Your task to perform on an android device: toggle translation in the chrome app Image 0: 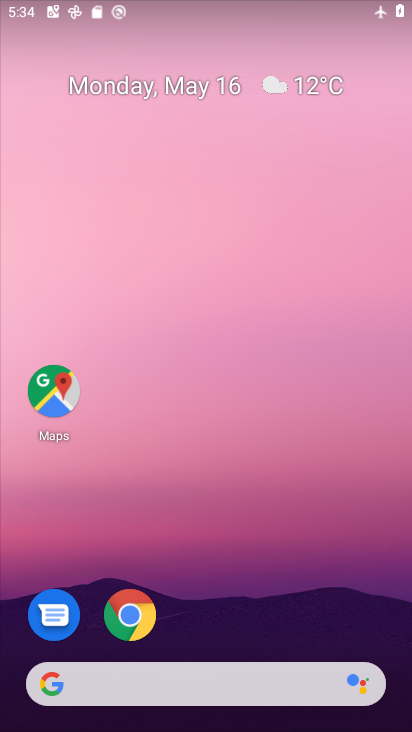
Step 0: drag from (191, 655) to (272, 222)
Your task to perform on an android device: toggle translation in the chrome app Image 1: 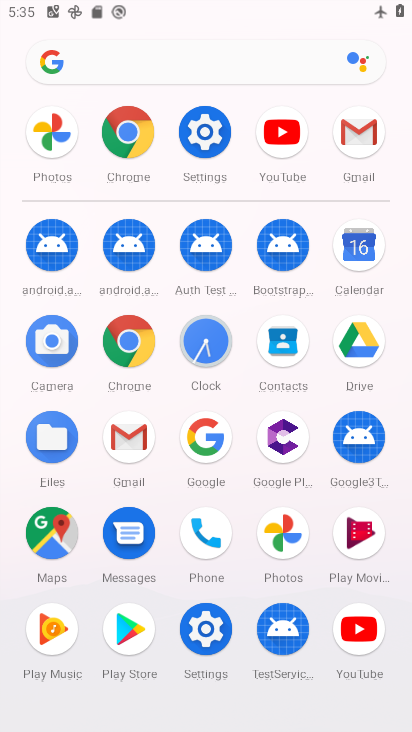
Step 1: click (119, 147)
Your task to perform on an android device: toggle translation in the chrome app Image 2: 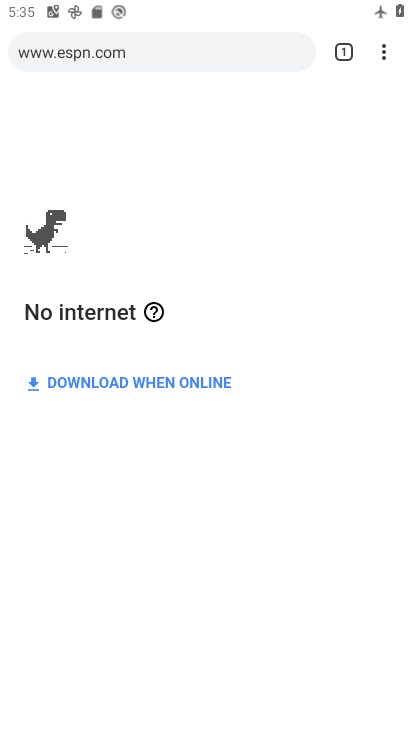
Step 2: click (386, 55)
Your task to perform on an android device: toggle translation in the chrome app Image 3: 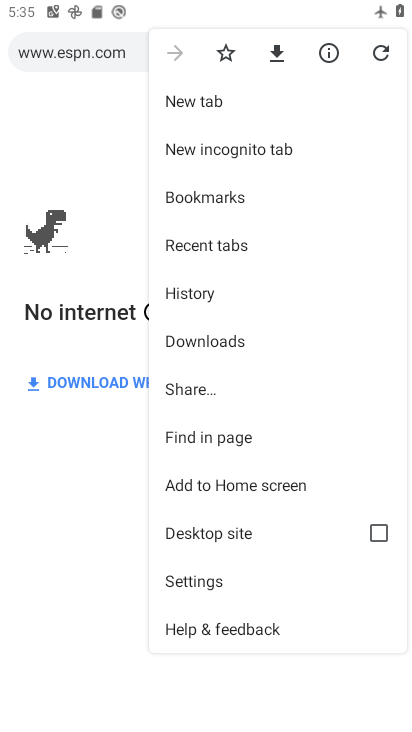
Step 3: click (199, 589)
Your task to perform on an android device: toggle translation in the chrome app Image 4: 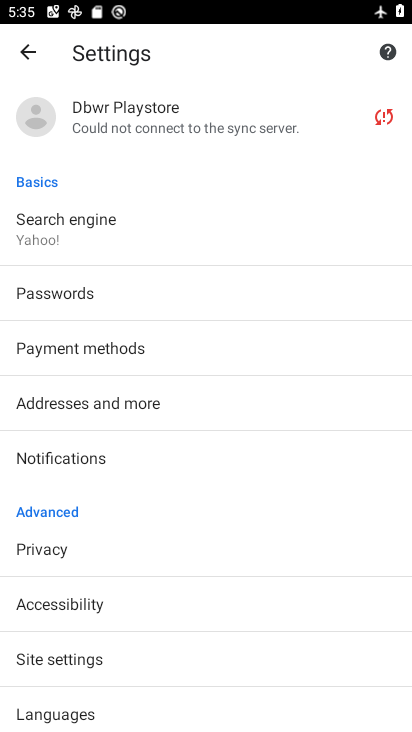
Step 4: drag from (134, 668) to (236, 212)
Your task to perform on an android device: toggle translation in the chrome app Image 5: 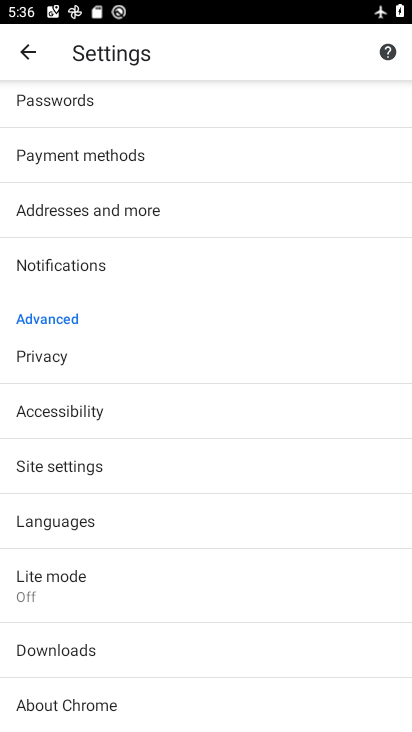
Step 5: click (61, 531)
Your task to perform on an android device: toggle translation in the chrome app Image 6: 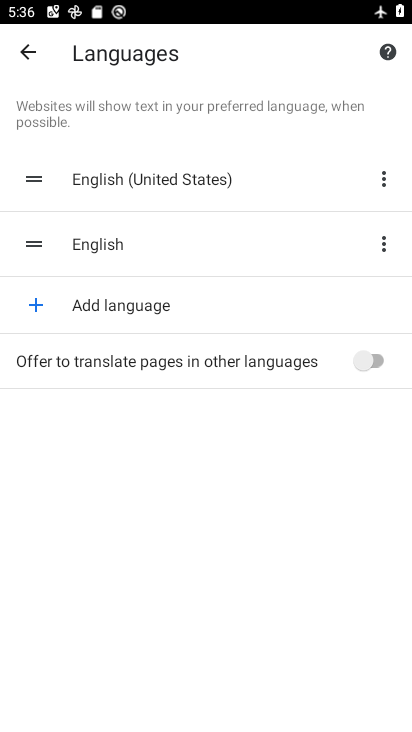
Step 6: click (376, 371)
Your task to perform on an android device: toggle translation in the chrome app Image 7: 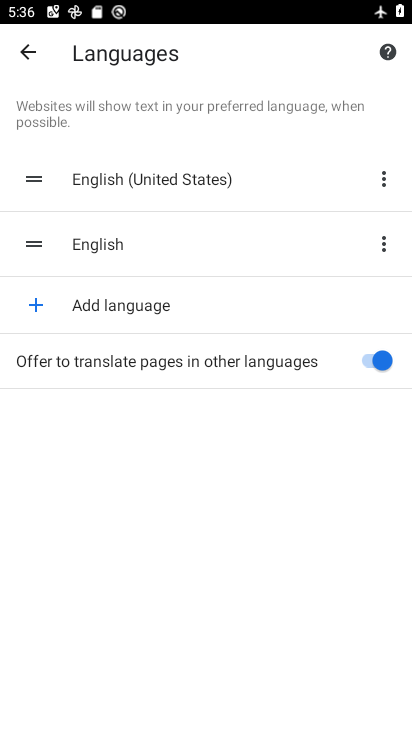
Step 7: task complete